Your task to perform on an android device: change alarm snooze length Image 0: 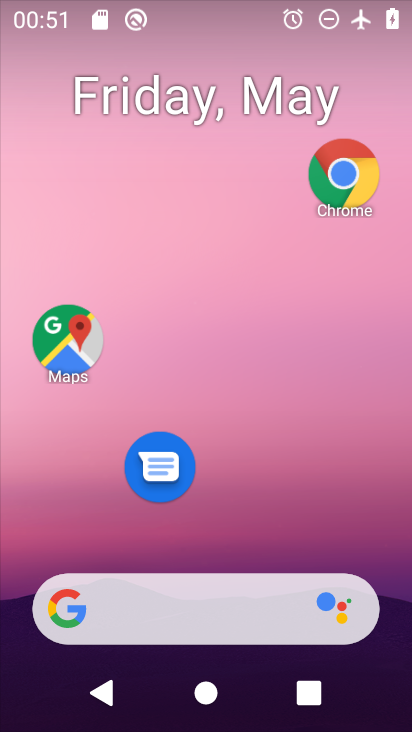
Step 0: drag from (264, 540) to (292, 250)
Your task to perform on an android device: change alarm snooze length Image 1: 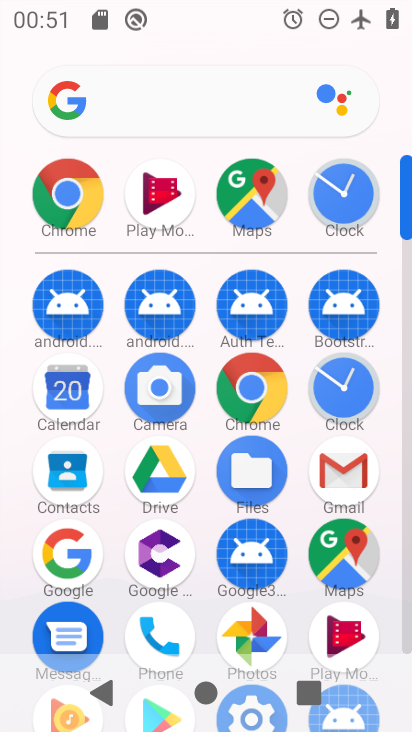
Step 1: click (341, 390)
Your task to perform on an android device: change alarm snooze length Image 2: 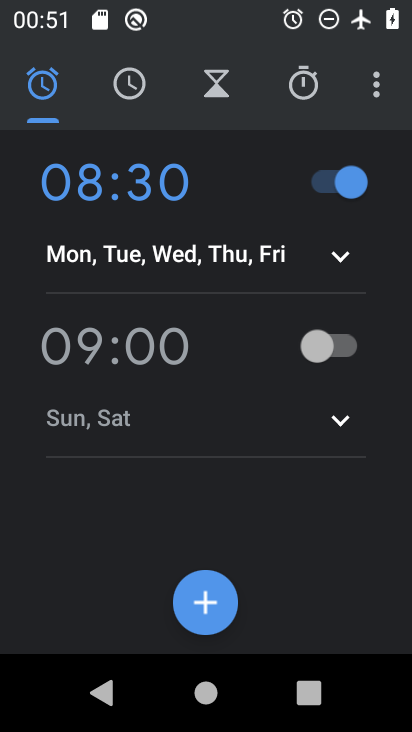
Step 2: click (372, 90)
Your task to perform on an android device: change alarm snooze length Image 3: 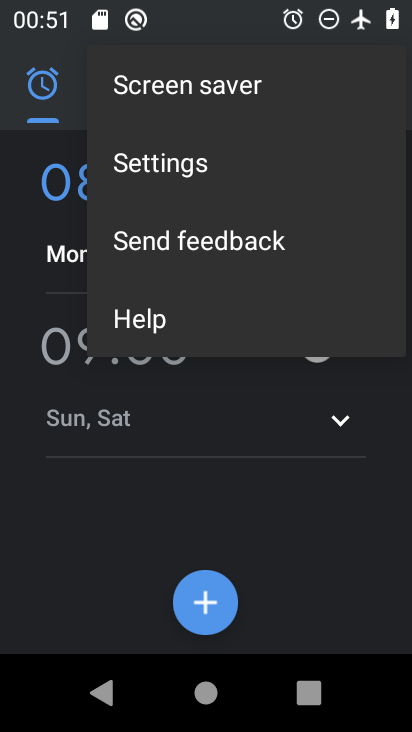
Step 3: click (183, 154)
Your task to perform on an android device: change alarm snooze length Image 4: 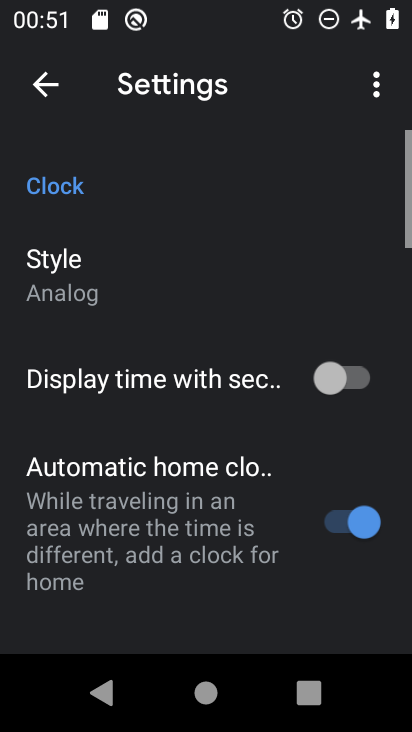
Step 4: drag from (195, 516) to (240, 185)
Your task to perform on an android device: change alarm snooze length Image 5: 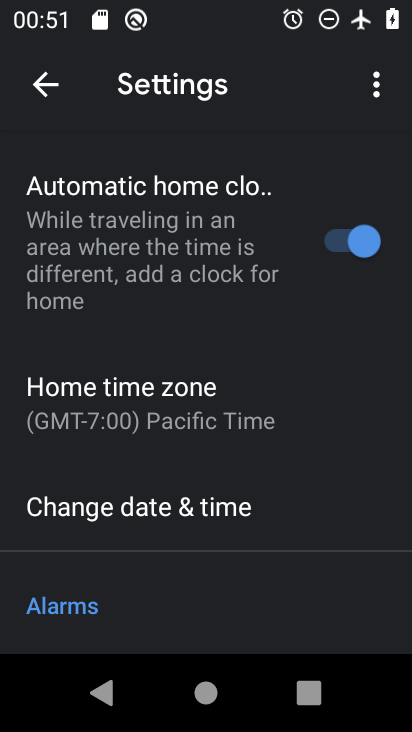
Step 5: drag from (163, 528) to (218, 211)
Your task to perform on an android device: change alarm snooze length Image 6: 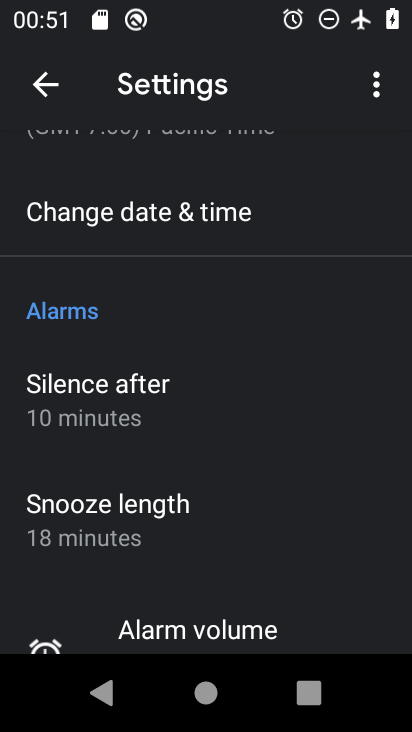
Step 6: drag from (223, 538) to (244, 252)
Your task to perform on an android device: change alarm snooze length Image 7: 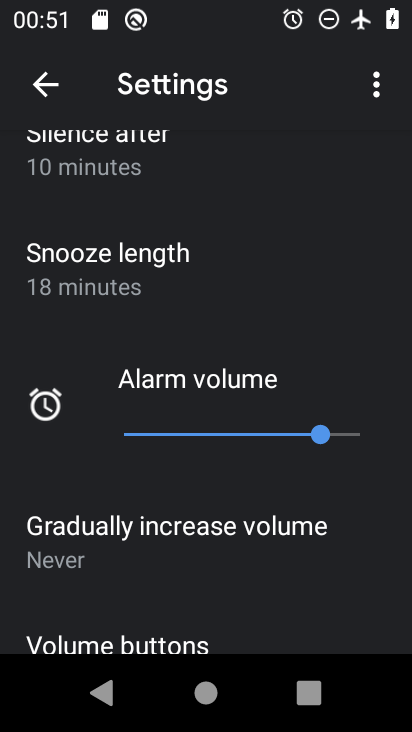
Step 7: drag from (174, 597) to (294, 92)
Your task to perform on an android device: change alarm snooze length Image 8: 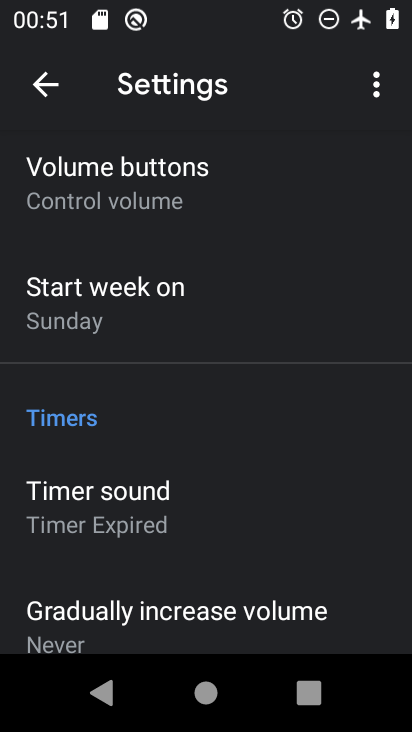
Step 8: drag from (205, 552) to (257, 192)
Your task to perform on an android device: change alarm snooze length Image 9: 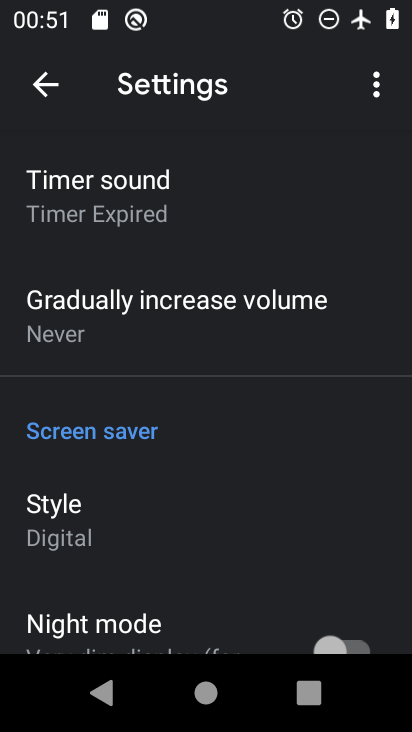
Step 9: drag from (149, 565) to (258, 152)
Your task to perform on an android device: change alarm snooze length Image 10: 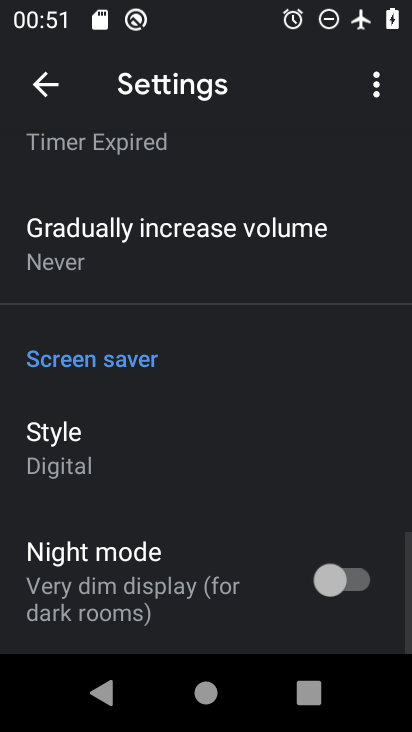
Step 10: drag from (235, 201) to (229, 538)
Your task to perform on an android device: change alarm snooze length Image 11: 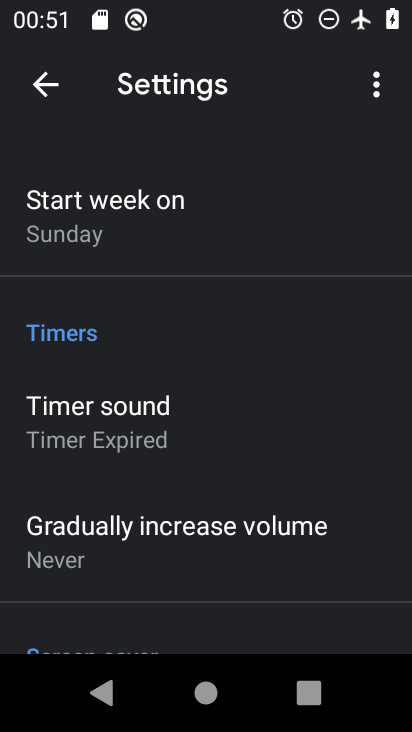
Step 11: drag from (230, 211) to (225, 559)
Your task to perform on an android device: change alarm snooze length Image 12: 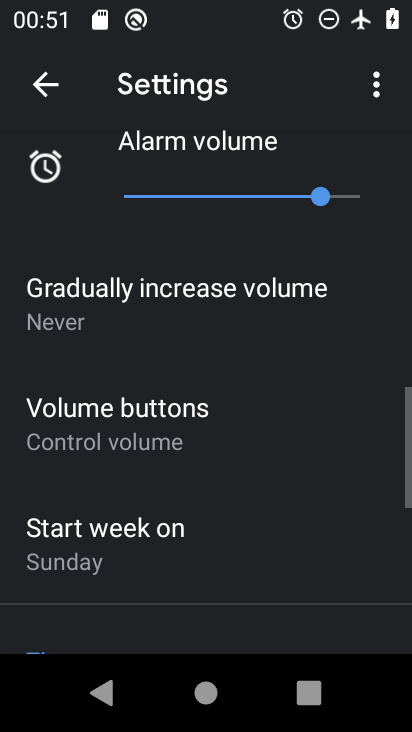
Step 12: drag from (222, 271) to (224, 563)
Your task to perform on an android device: change alarm snooze length Image 13: 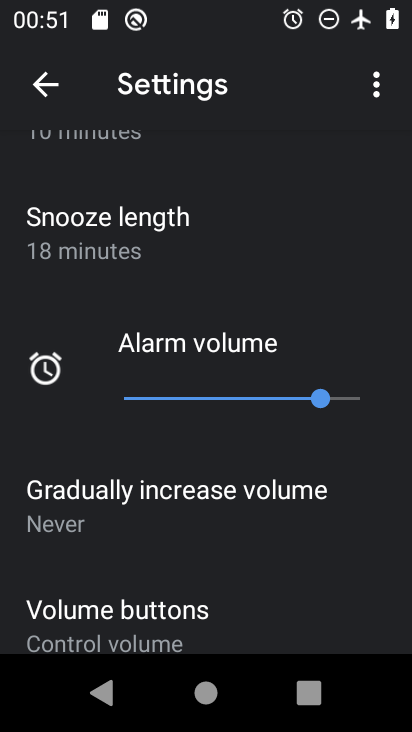
Step 13: click (212, 226)
Your task to perform on an android device: change alarm snooze length Image 14: 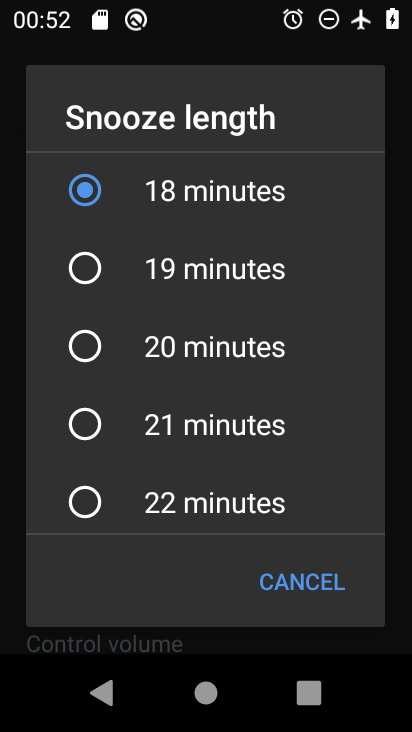
Step 14: drag from (144, 466) to (171, 291)
Your task to perform on an android device: change alarm snooze length Image 15: 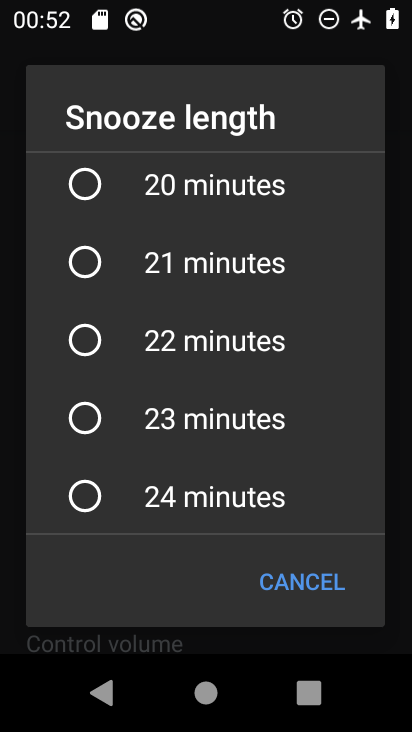
Step 15: click (145, 426)
Your task to perform on an android device: change alarm snooze length Image 16: 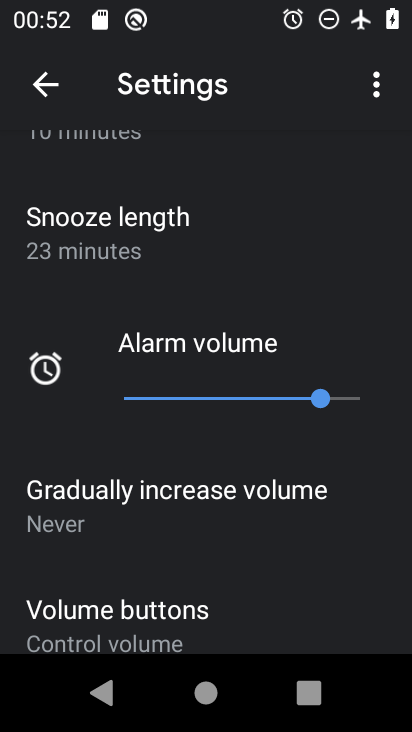
Step 16: task complete